Your task to perform on an android device: What's the weather? Image 0: 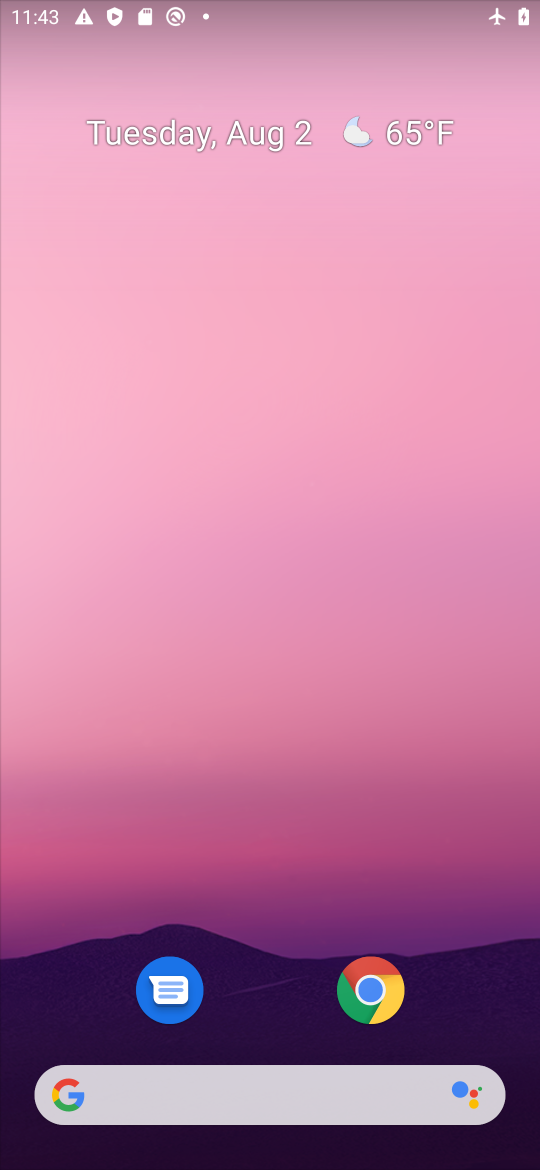
Step 0: press home button
Your task to perform on an android device: What's the weather? Image 1: 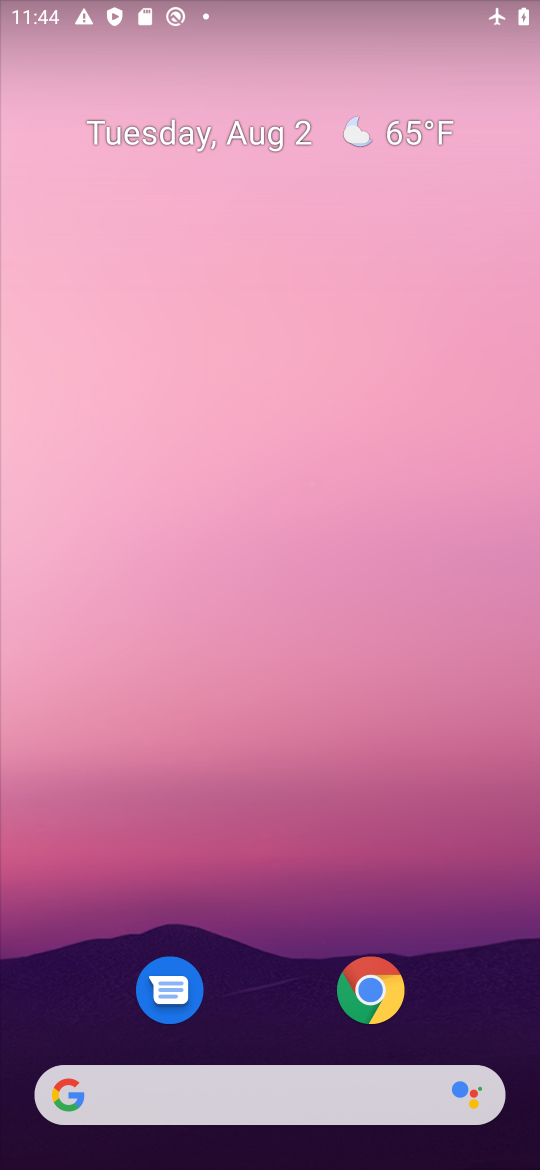
Step 1: click (257, 1087)
Your task to perform on an android device: What's the weather? Image 2: 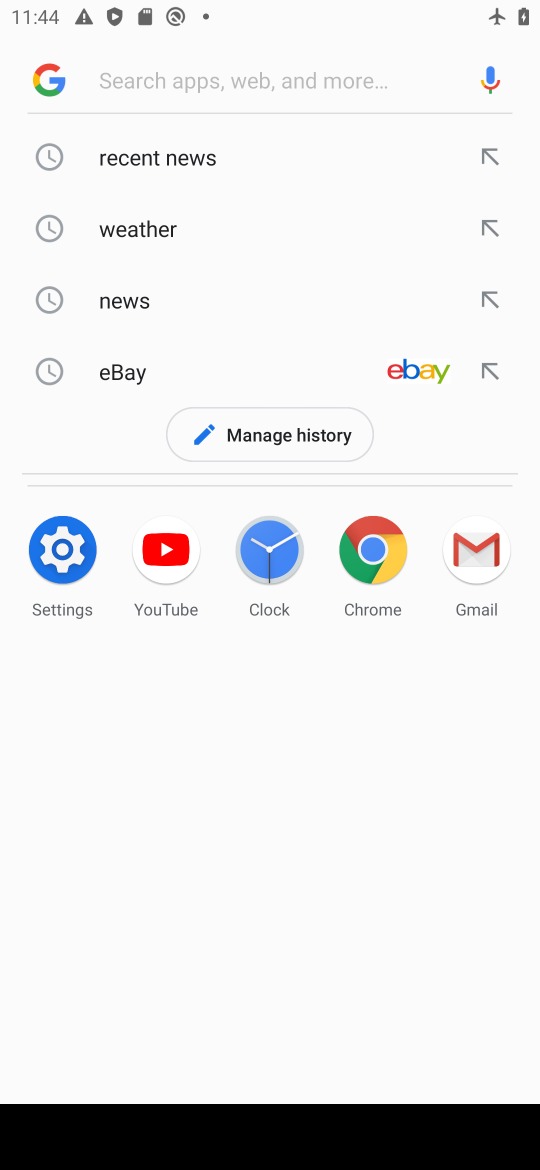
Step 2: click (160, 229)
Your task to perform on an android device: What's the weather? Image 3: 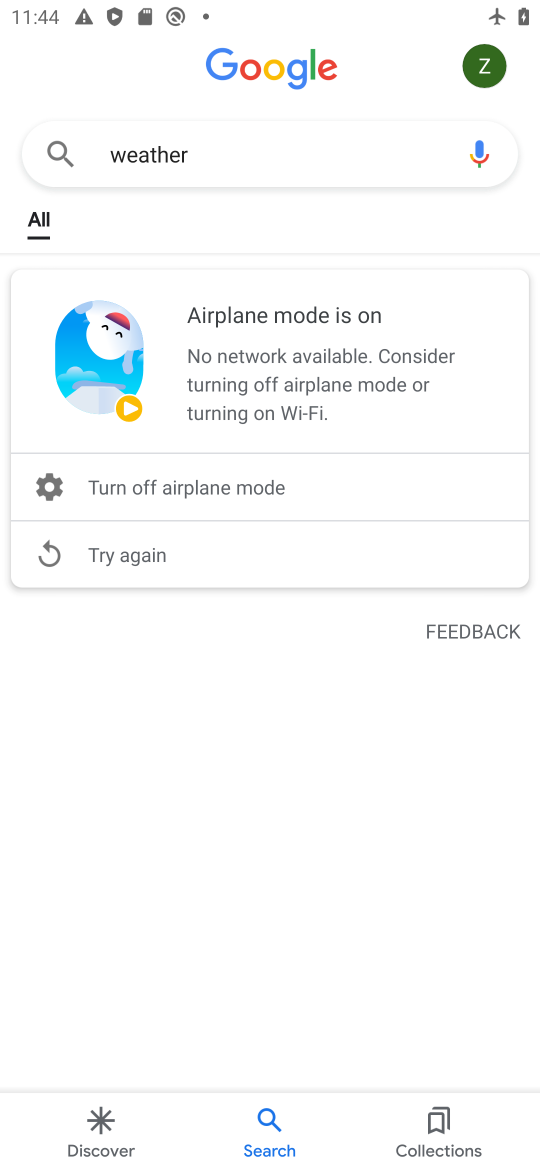
Step 3: task complete